Your task to perform on an android device: Go to settings Image 0: 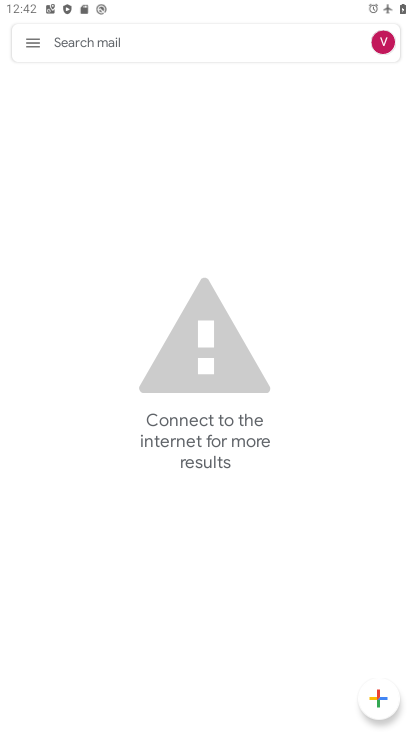
Step 0: press home button
Your task to perform on an android device: Go to settings Image 1: 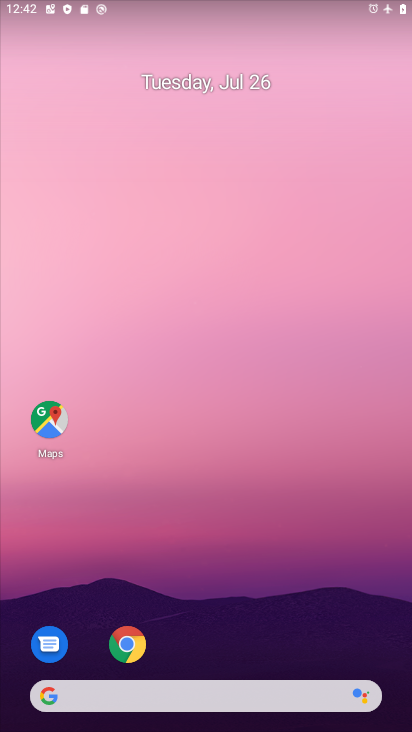
Step 1: drag from (179, 694) to (248, 136)
Your task to perform on an android device: Go to settings Image 2: 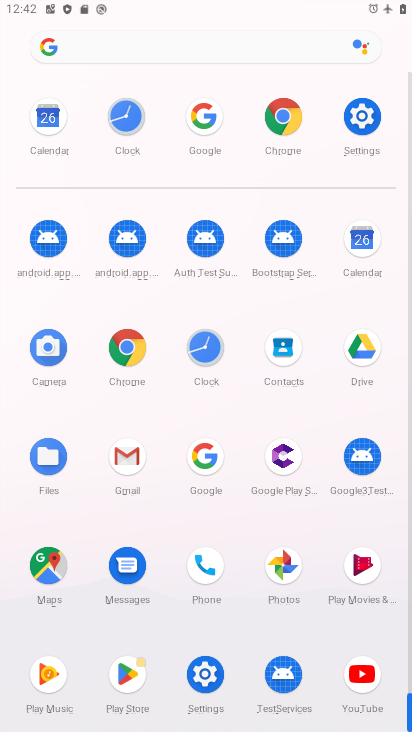
Step 2: click (363, 137)
Your task to perform on an android device: Go to settings Image 3: 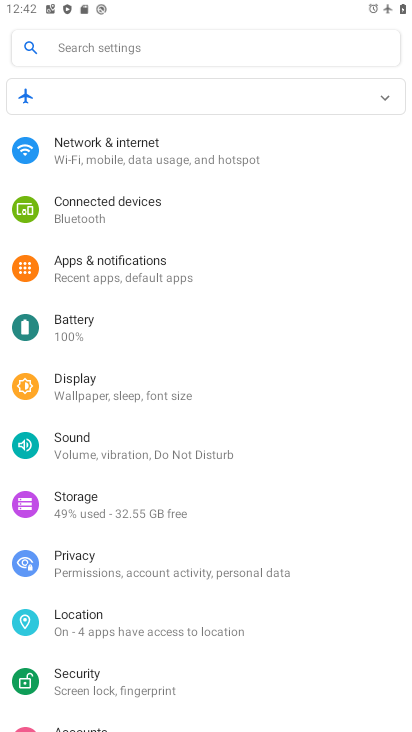
Step 3: task complete